Your task to perform on an android device: all mails in gmail Image 0: 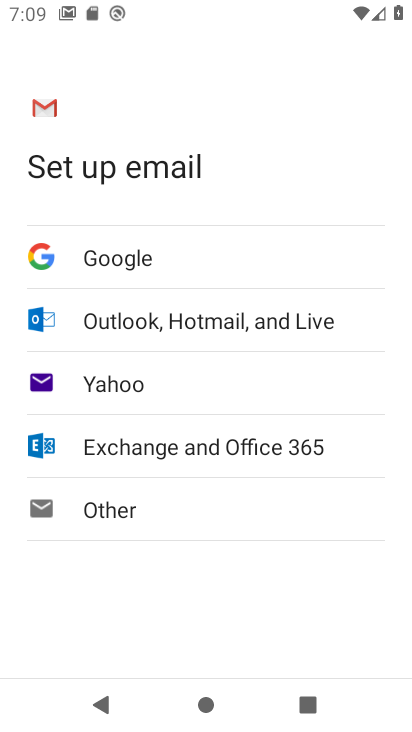
Step 0: press home button
Your task to perform on an android device: all mails in gmail Image 1: 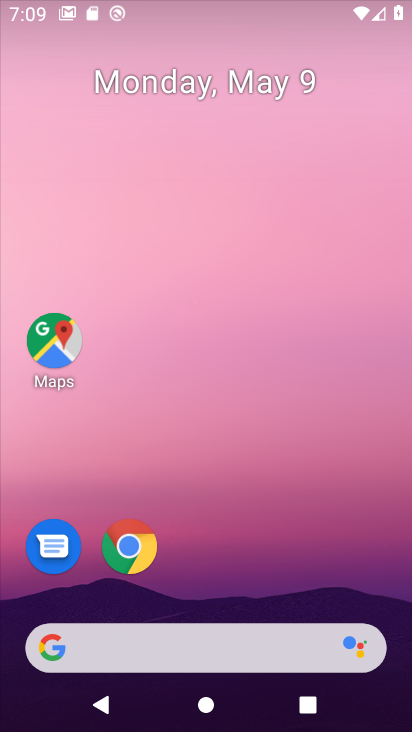
Step 1: drag from (279, 575) to (279, 125)
Your task to perform on an android device: all mails in gmail Image 2: 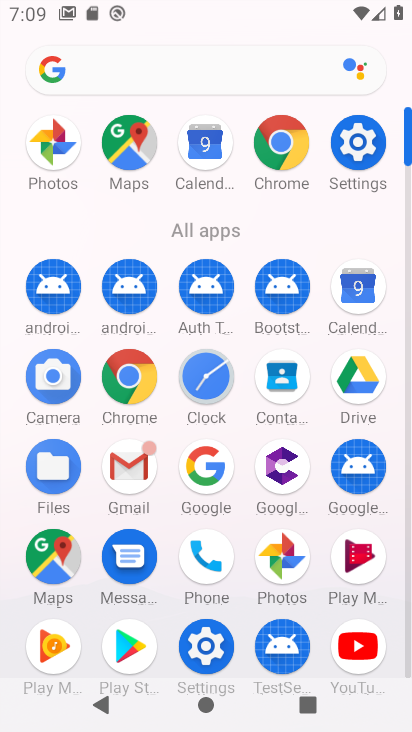
Step 2: click (121, 480)
Your task to perform on an android device: all mails in gmail Image 3: 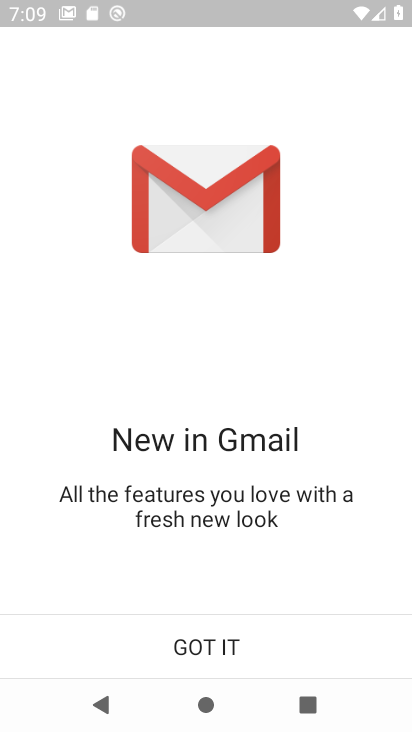
Step 3: click (235, 651)
Your task to perform on an android device: all mails in gmail Image 4: 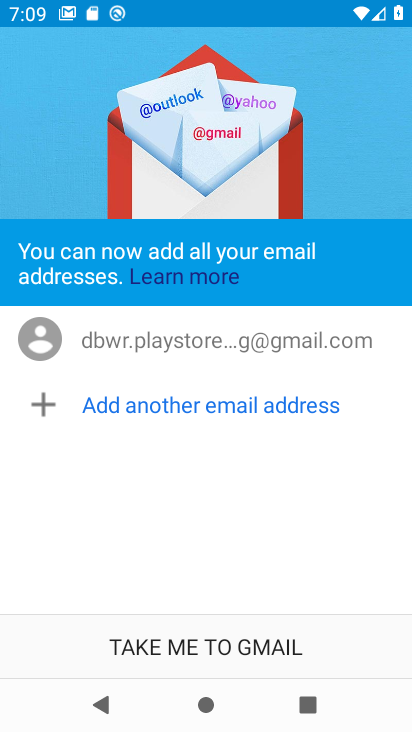
Step 4: click (234, 650)
Your task to perform on an android device: all mails in gmail Image 5: 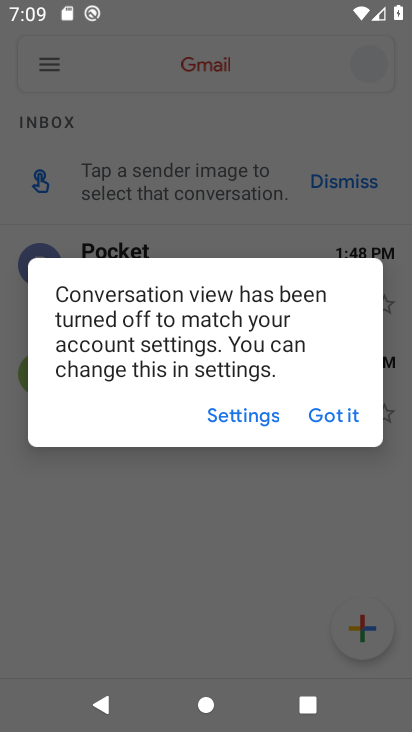
Step 5: click (335, 419)
Your task to perform on an android device: all mails in gmail Image 6: 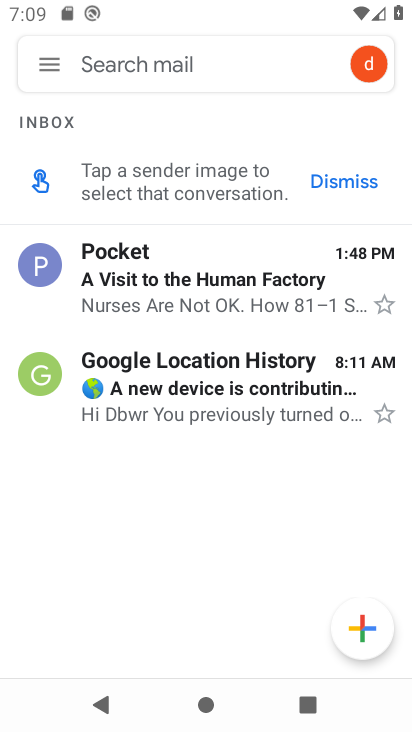
Step 6: click (42, 61)
Your task to perform on an android device: all mails in gmail Image 7: 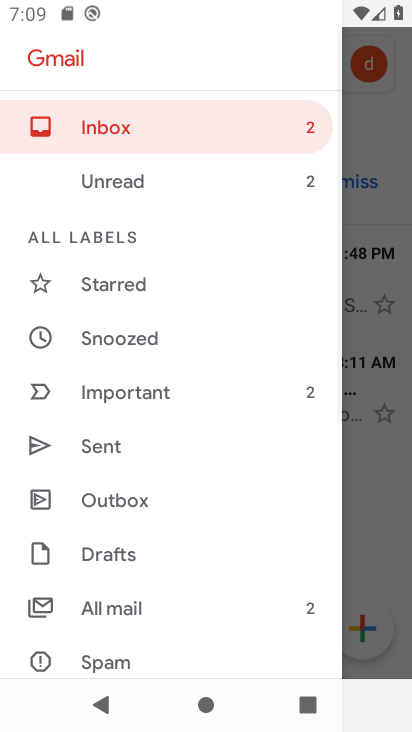
Step 7: click (148, 604)
Your task to perform on an android device: all mails in gmail Image 8: 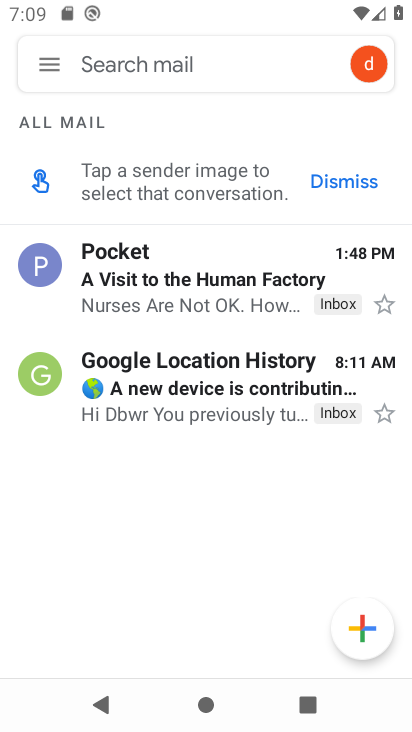
Step 8: task complete